Your task to perform on an android device: turn off location Image 0: 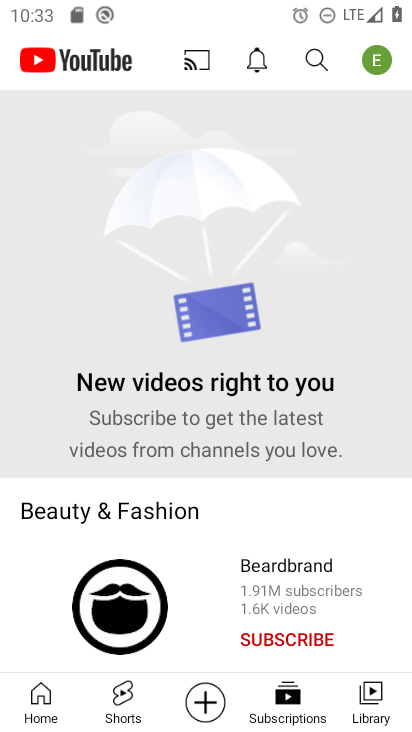
Step 0: press home button
Your task to perform on an android device: turn off location Image 1: 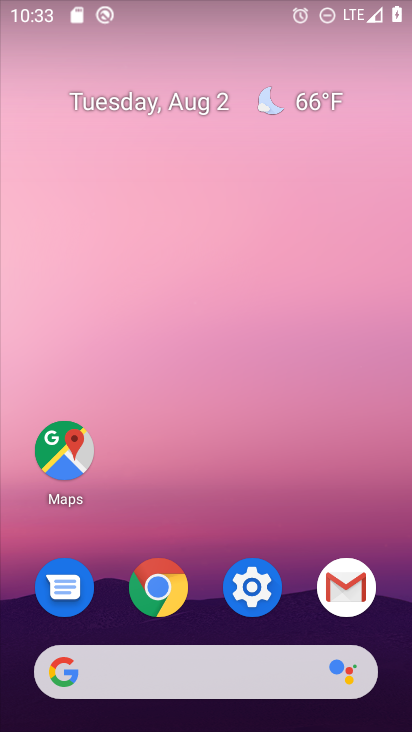
Step 1: click (278, 597)
Your task to perform on an android device: turn off location Image 2: 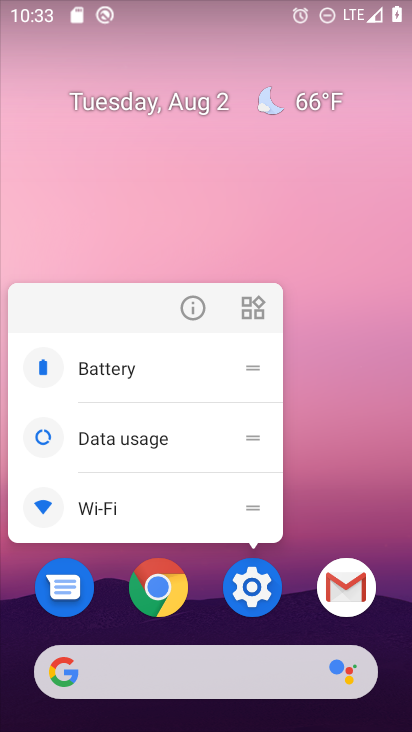
Step 2: click (252, 608)
Your task to perform on an android device: turn off location Image 3: 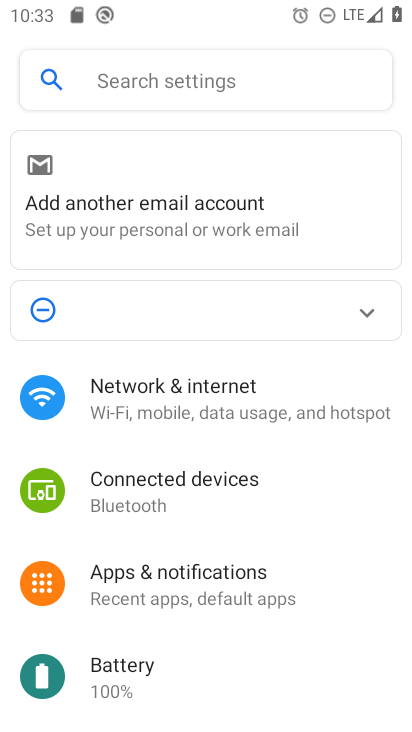
Step 3: click (149, 80)
Your task to perform on an android device: turn off location Image 4: 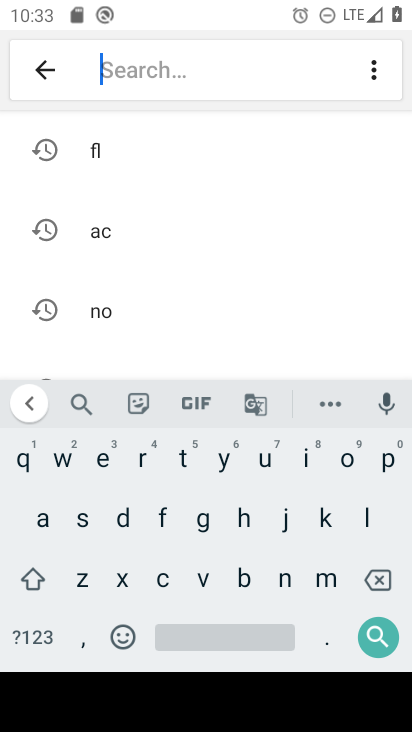
Step 4: click (370, 519)
Your task to perform on an android device: turn off location Image 5: 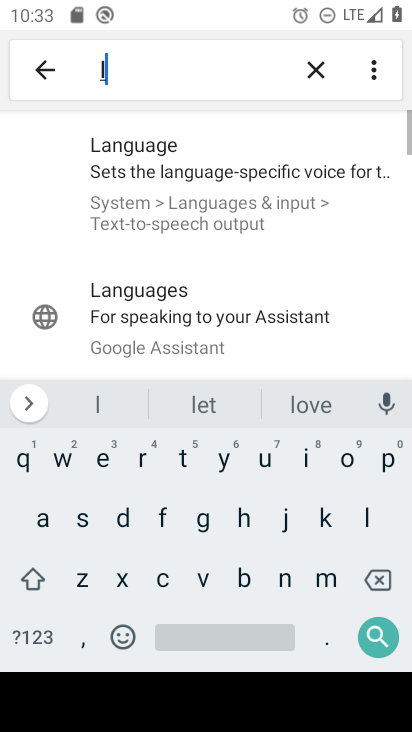
Step 5: click (340, 462)
Your task to perform on an android device: turn off location Image 6: 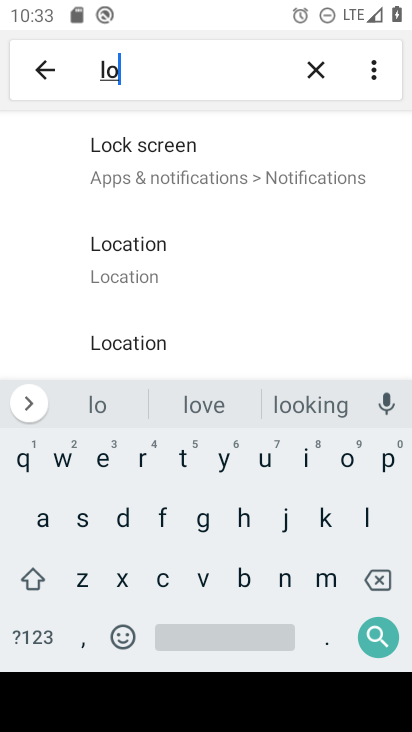
Step 6: click (161, 253)
Your task to perform on an android device: turn off location Image 7: 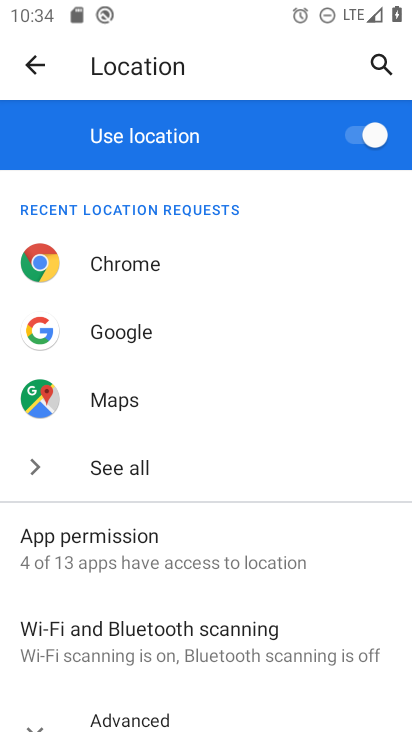
Step 7: click (369, 144)
Your task to perform on an android device: turn off location Image 8: 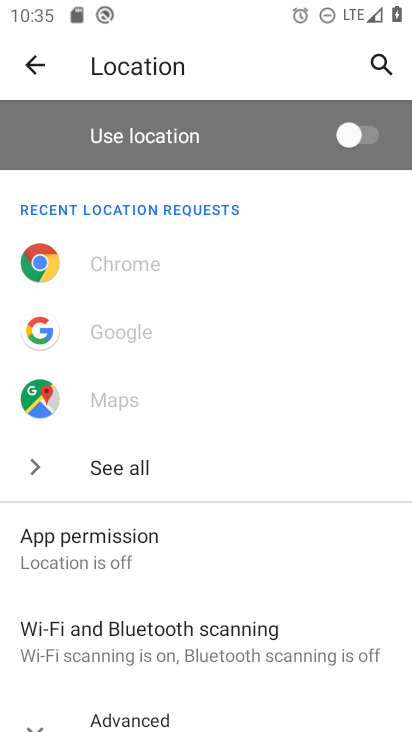
Step 8: task complete